Your task to perform on an android device: see tabs open on other devices in the chrome app Image 0: 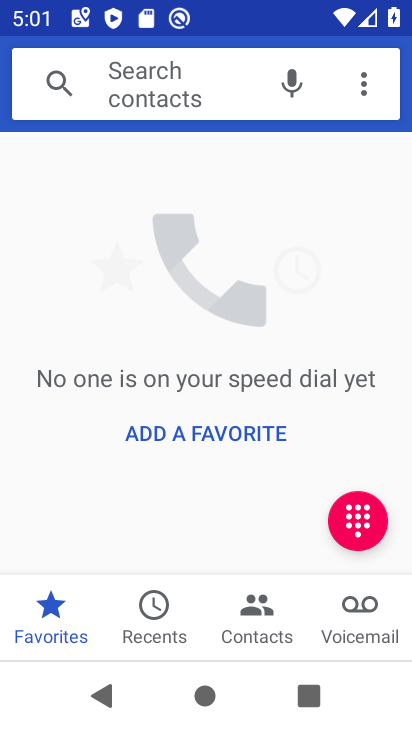
Step 0: press home button
Your task to perform on an android device: see tabs open on other devices in the chrome app Image 1: 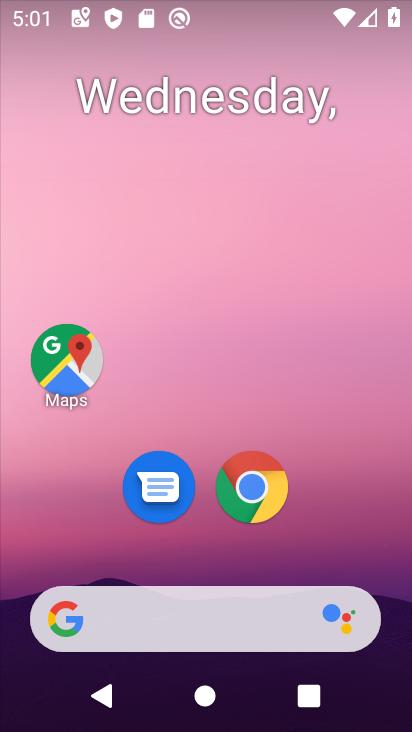
Step 1: drag from (177, 619) to (194, 92)
Your task to perform on an android device: see tabs open on other devices in the chrome app Image 2: 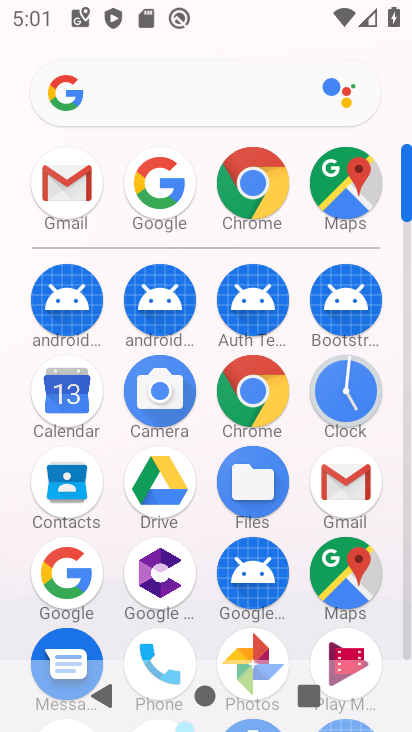
Step 2: click (269, 399)
Your task to perform on an android device: see tabs open on other devices in the chrome app Image 3: 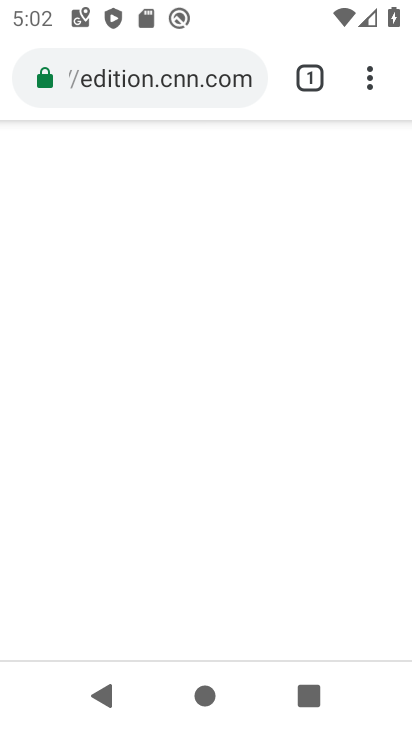
Step 3: task complete